Your task to perform on an android device: Search for apple airpods pro on target, select the first entry, add it to the cart, then select checkout. Image 0: 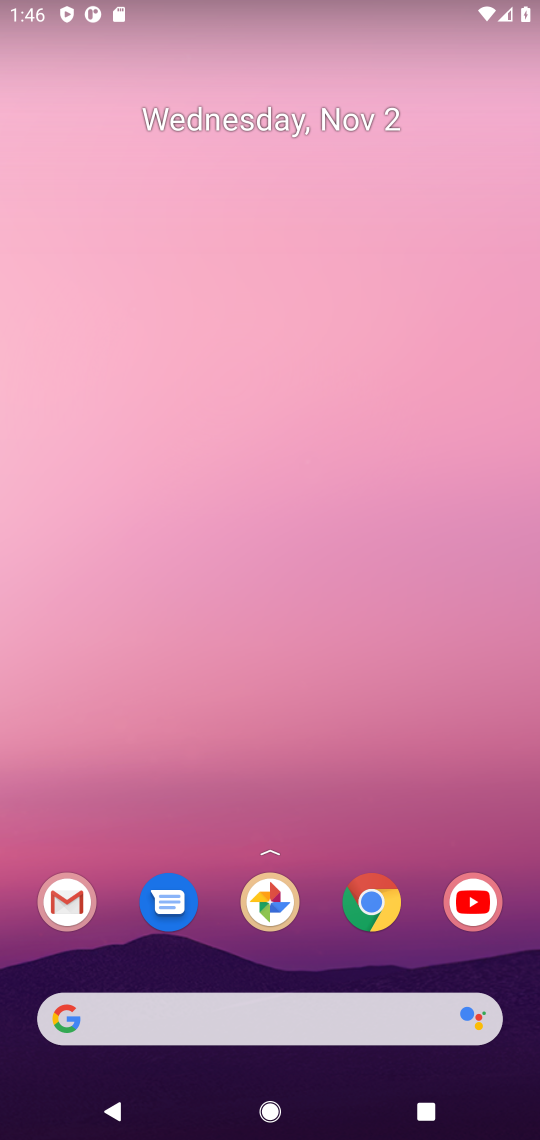
Step 0: click (230, 1000)
Your task to perform on an android device: Search for apple airpods pro on target, select the first entry, add it to the cart, then select checkout. Image 1: 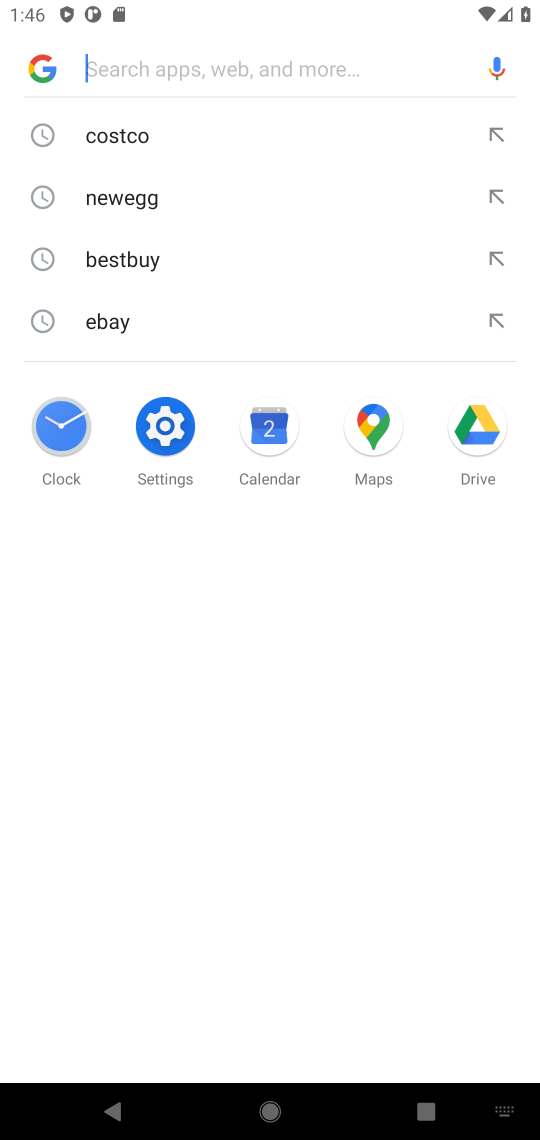
Step 1: type "target"
Your task to perform on an android device: Search for apple airpods pro on target, select the first entry, add it to the cart, then select checkout. Image 2: 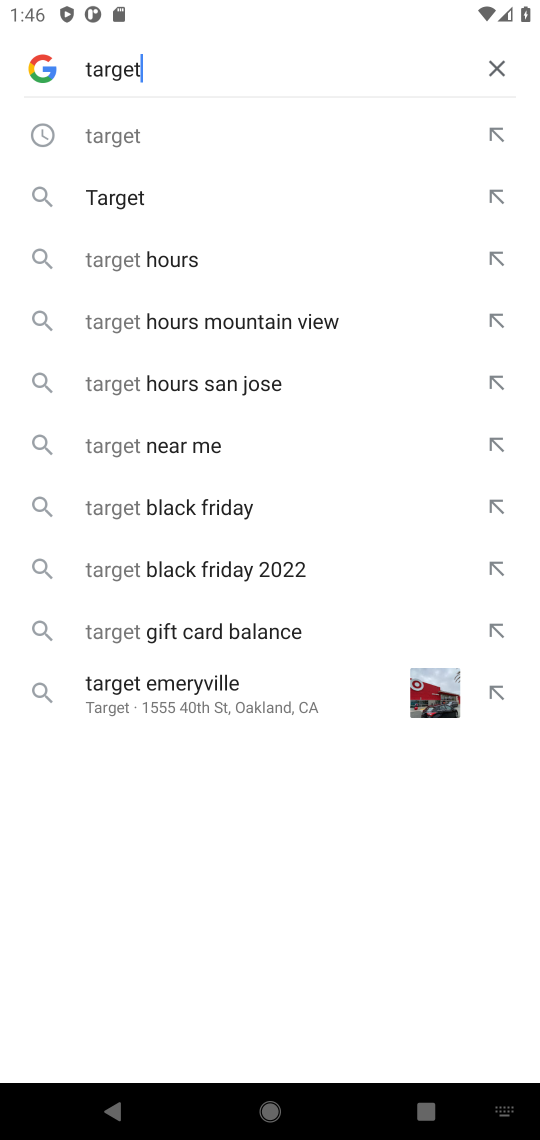
Step 2: click (126, 133)
Your task to perform on an android device: Search for apple airpods pro on target, select the first entry, add it to the cart, then select checkout. Image 3: 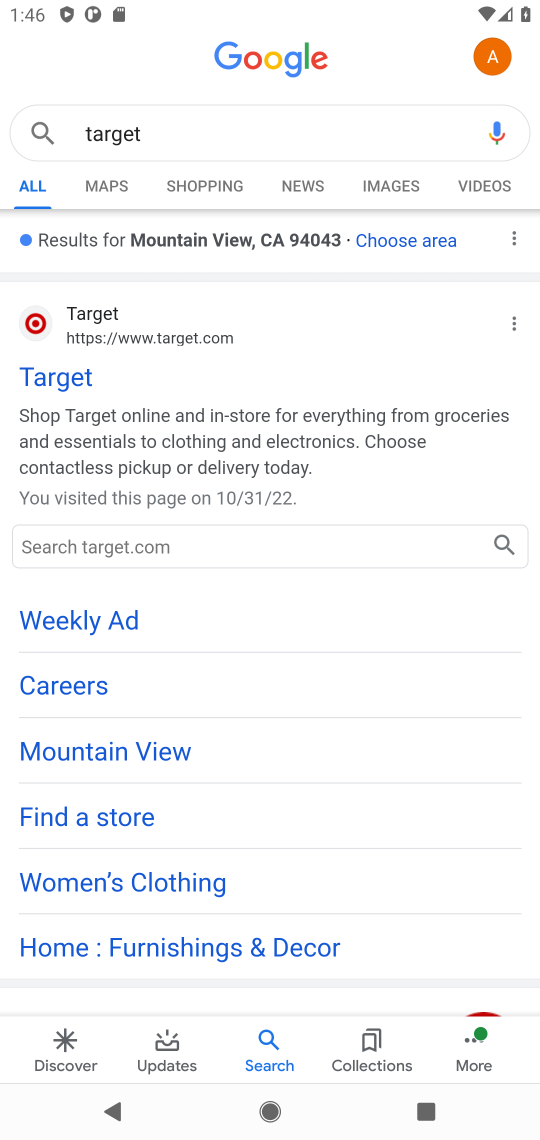
Step 3: click (63, 373)
Your task to perform on an android device: Search for apple airpods pro on target, select the first entry, add it to the cart, then select checkout. Image 4: 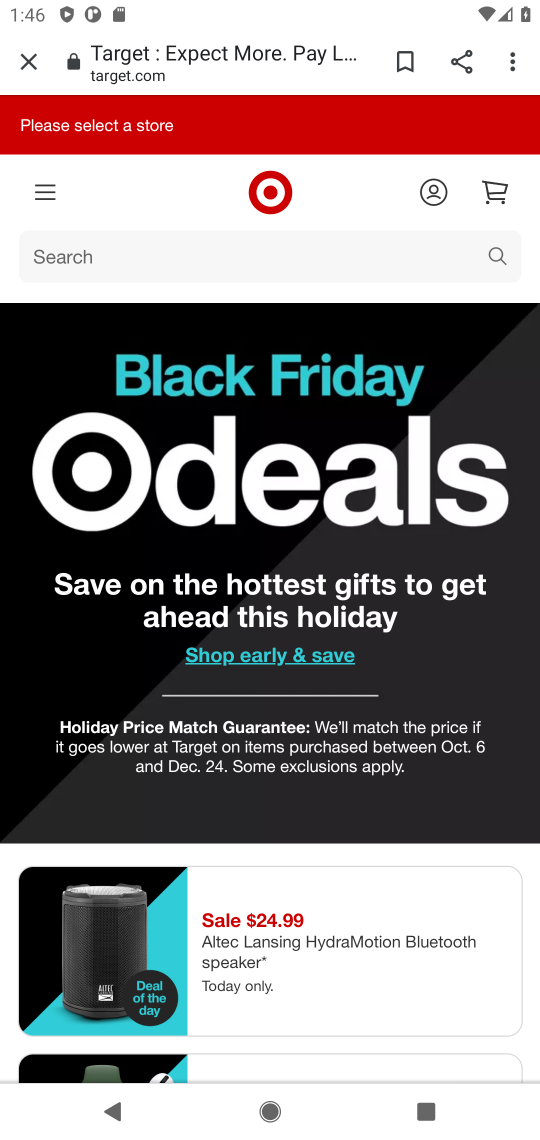
Step 4: click (175, 261)
Your task to perform on an android device: Search for apple airpods pro on target, select the first entry, add it to the cart, then select checkout. Image 5: 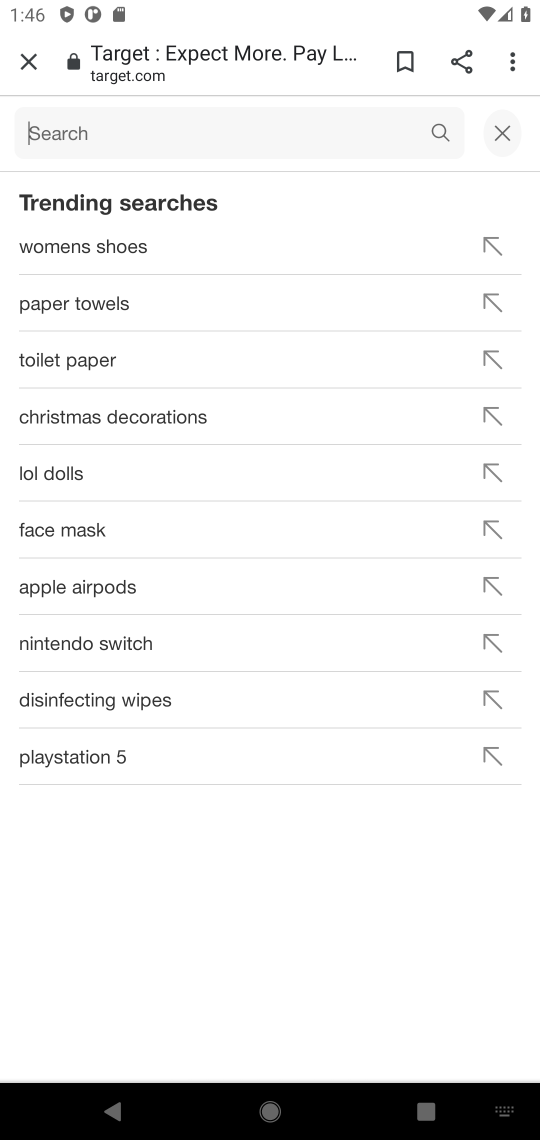
Step 5: type "apple airpod pro"
Your task to perform on an android device: Search for apple airpods pro on target, select the first entry, add it to the cart, then select checkout. Image 6: 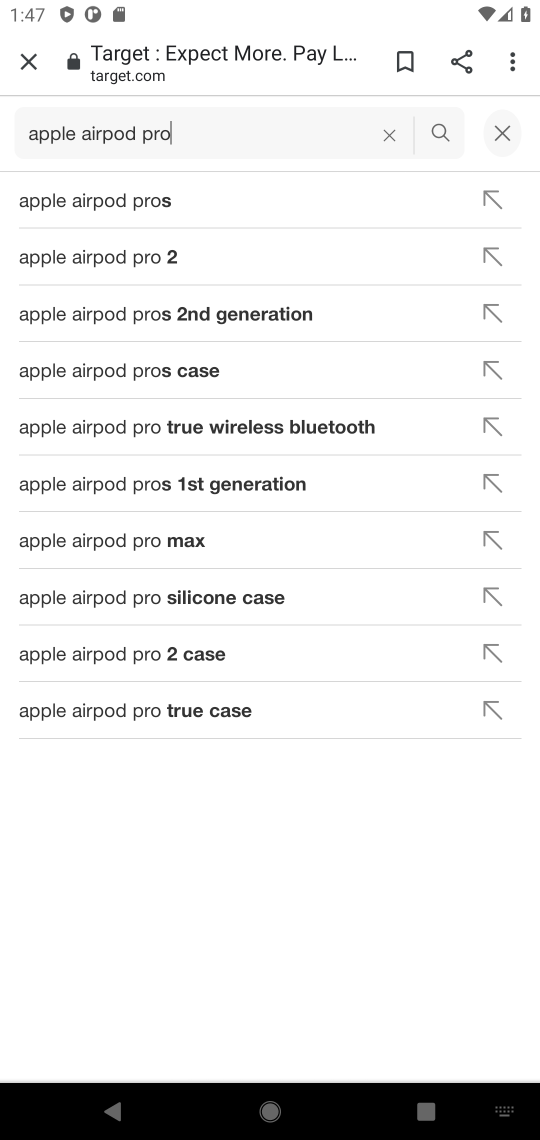
Step 6: click (434, 130)
Your task to perform on an android device: Search for apple airpods pro on target, select the first entry, add it to the cart, then select checkout. Image 7: 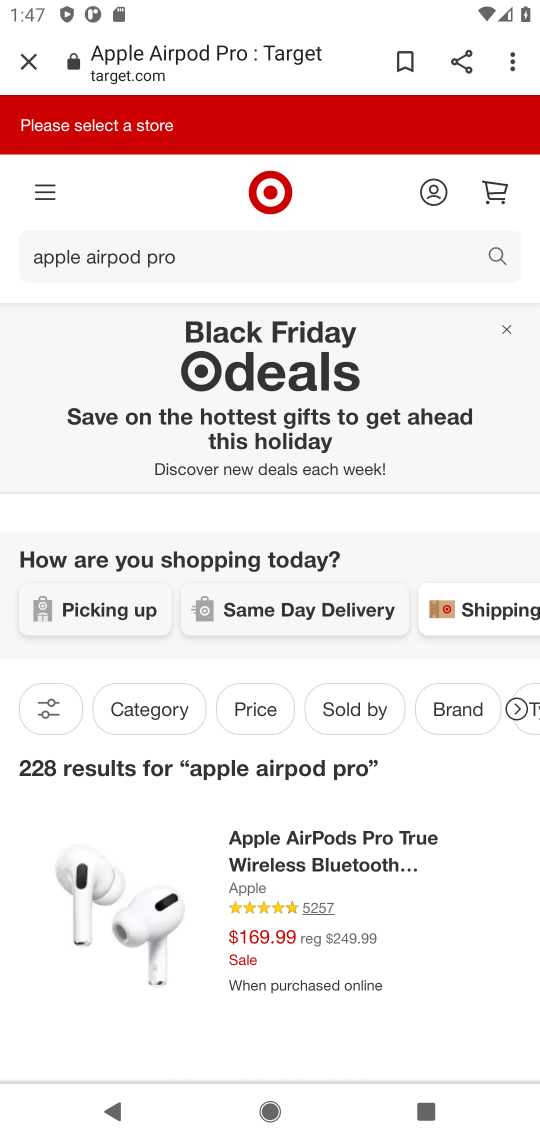
Step 7: drag from (446, 924) to (415, 677)
Your task to perform on an android device: Search for apple airpods pro on target, select the first entry, add it to the cart, then select checkout. Image 8: 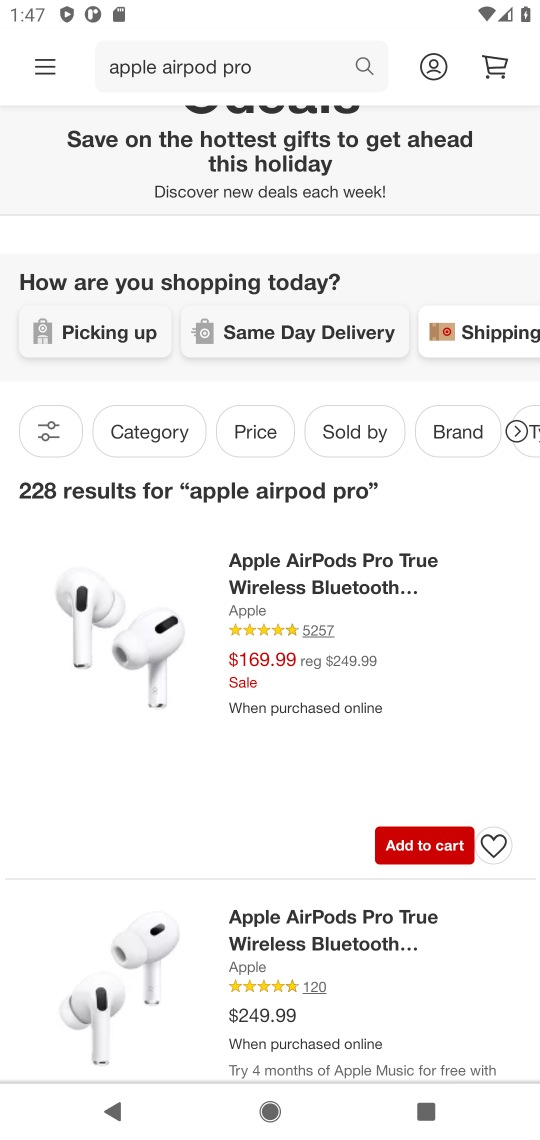
Step 8: click (431, 843)
Your task to perform on an android device: Search for apple airpods pro on target, select the first entry, add it to the cart, then select checkout. Image 9: 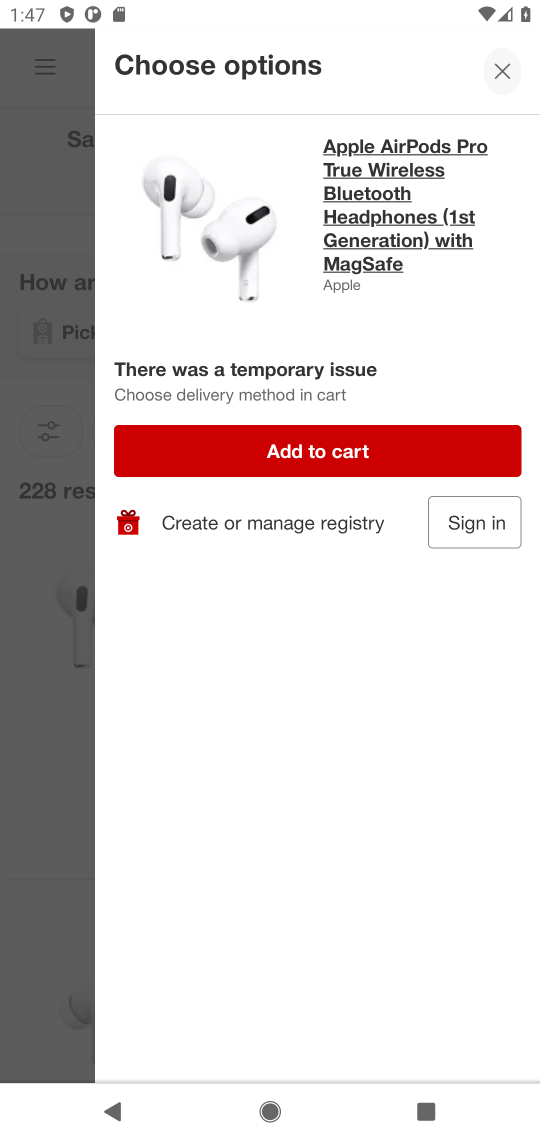
Step 9: click (314, 448)
Your task to perform on an android device: Search for apple airpods pro on target, select the first entry, add it to the cart, then select checkout. Image 10: 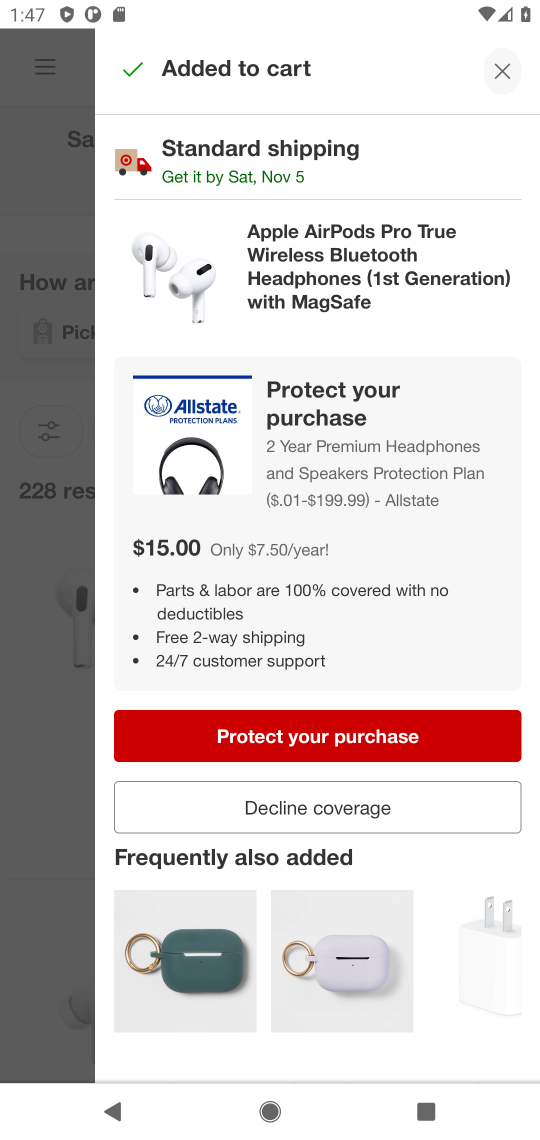
Step 10: click (504, 68)
Your task to perform on an android device: Search for apple airpods pro on target, select the first entry, add it to the cart, then select checkout. Image 11: 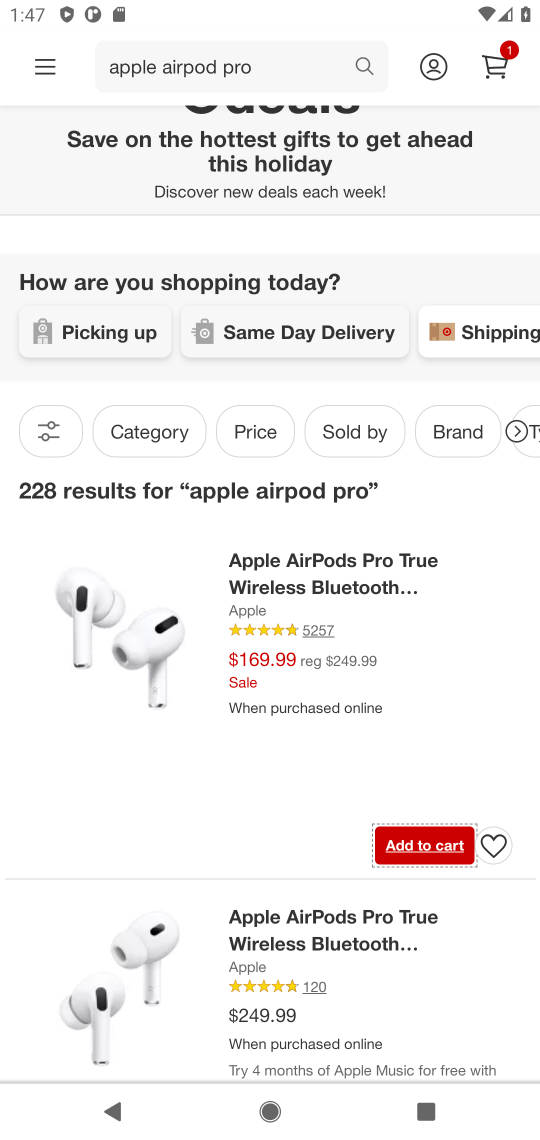
Step 11: click (504, 55)
Your task to perform on an android device: Search for apple airpods pro on target, select the first entry, add it to the cart, then select checkout. Image 12: 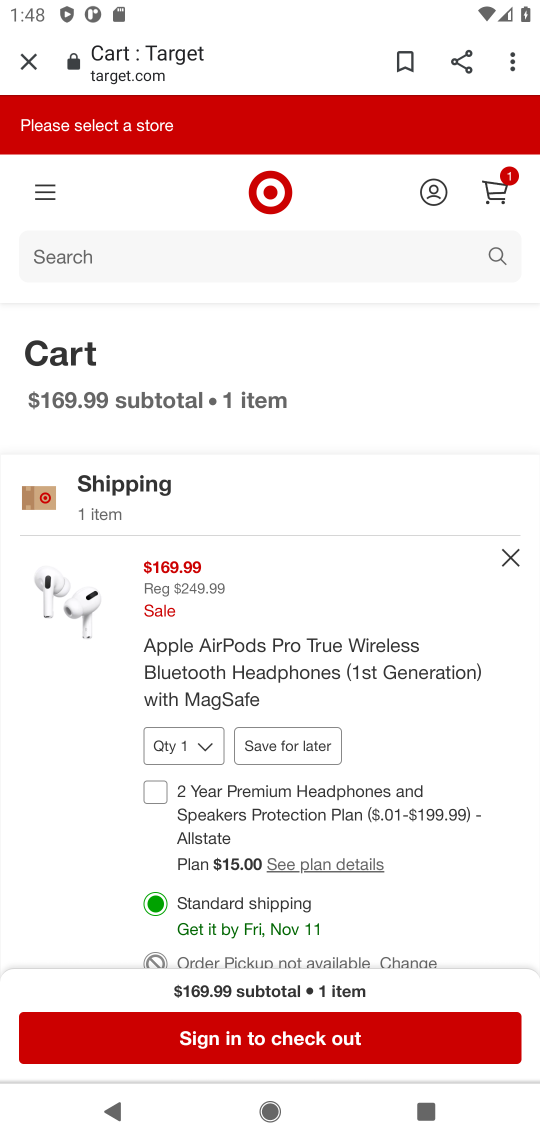
Step 12: click (300, 1043)
Your task to perform on an android device: Search for apple airpods pro on target, select the first entry, add it to the cart, then select checkout. Image 13: 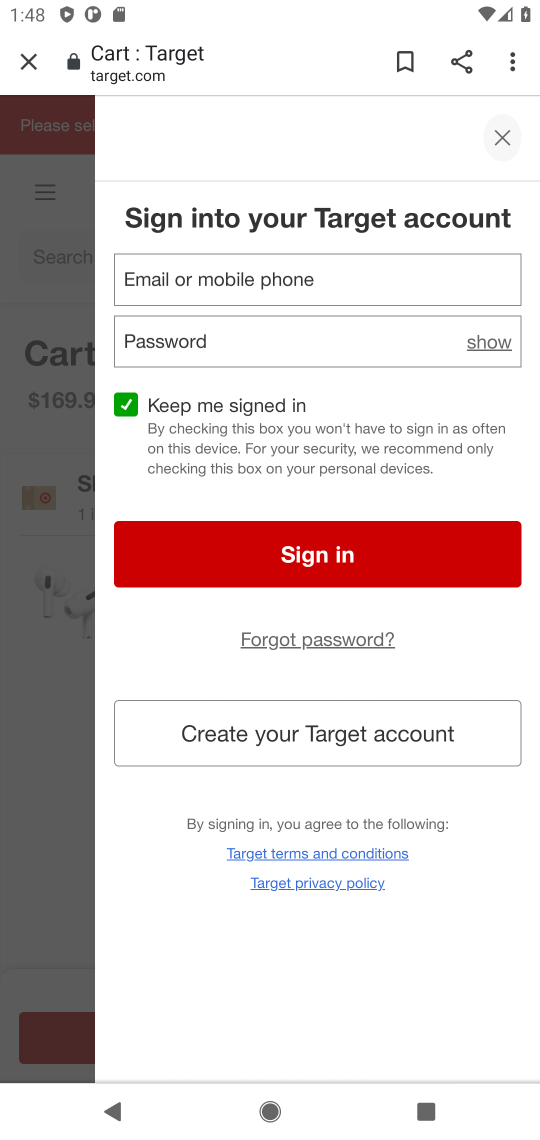
Step 13: task complete